Your task to perform on an android device: toggle pop-ups in chrome Image 0: 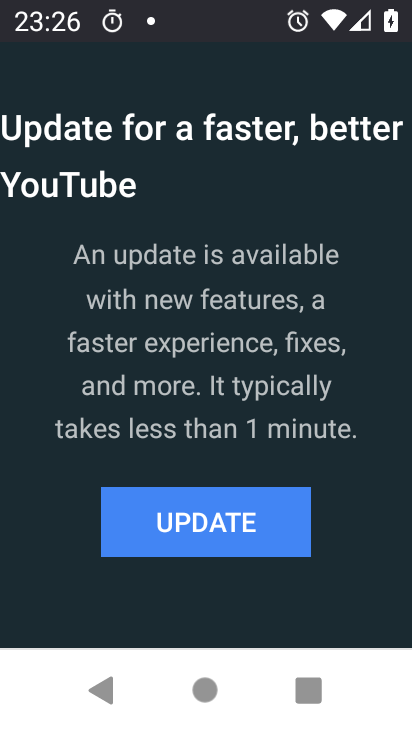
Step 0: task impossible